Your task to perform on an android device: change the clock style Image 0: 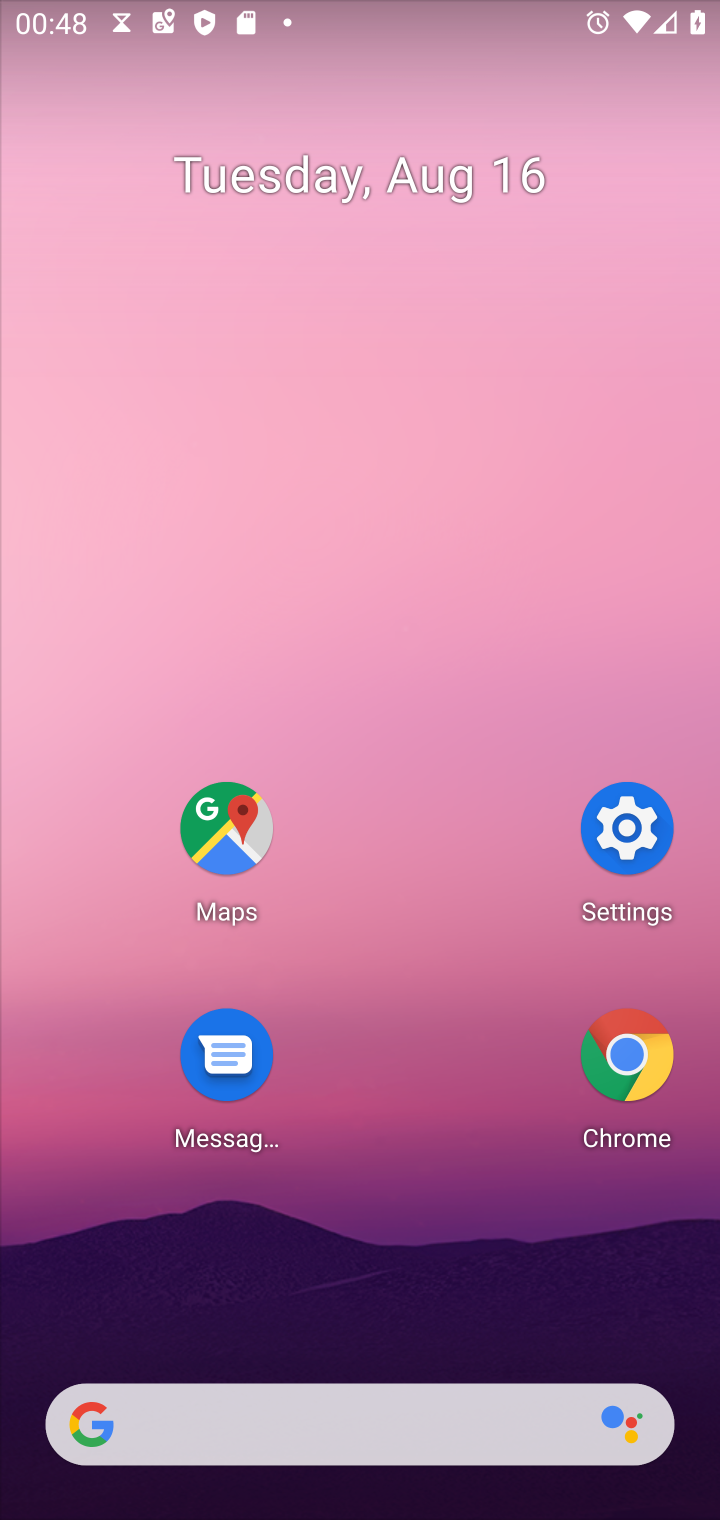
Step 0: drag from (399, 1340) to (695, 11)
Your task to perform on an android device: change the clock style Image 1: 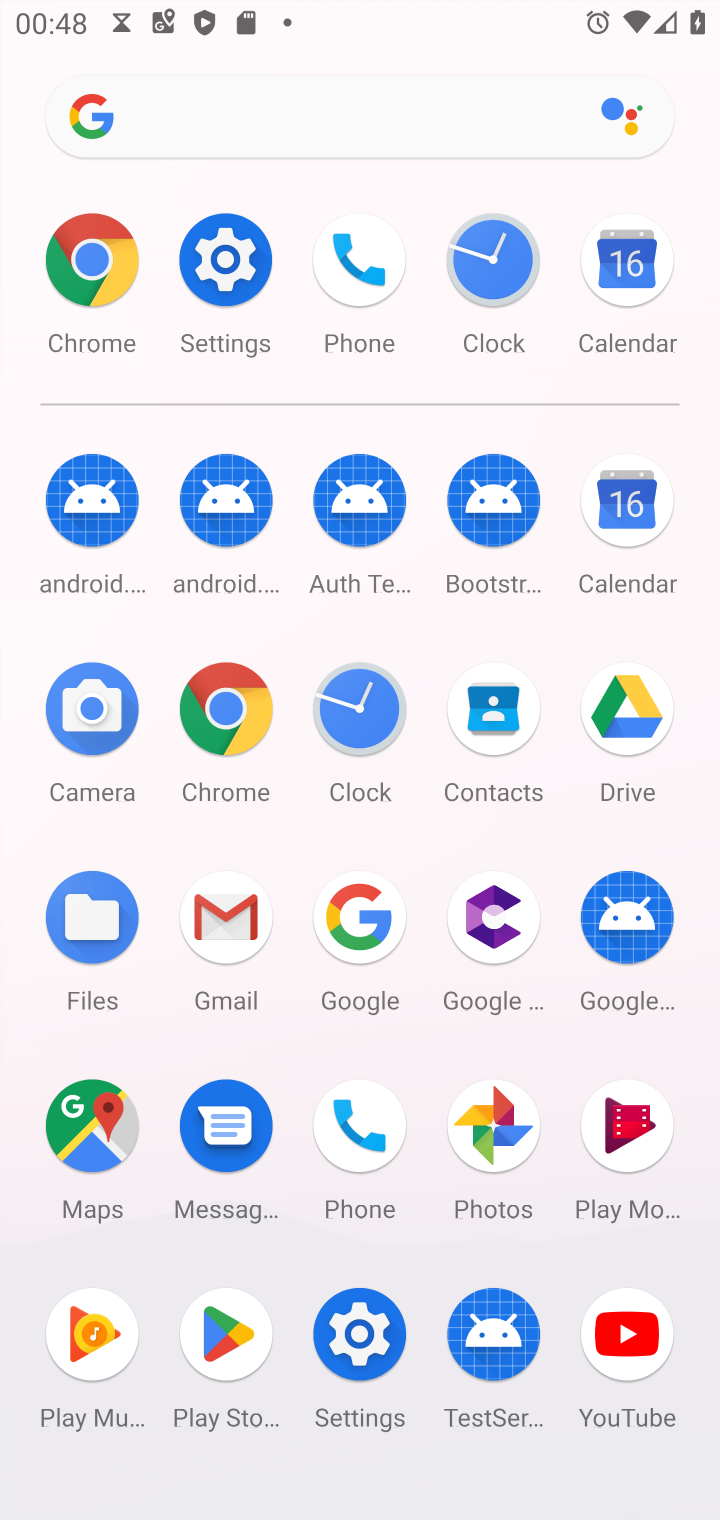
Step 1: click (351, 707)
Your task to perform on an android device: change the clock style Image 2: 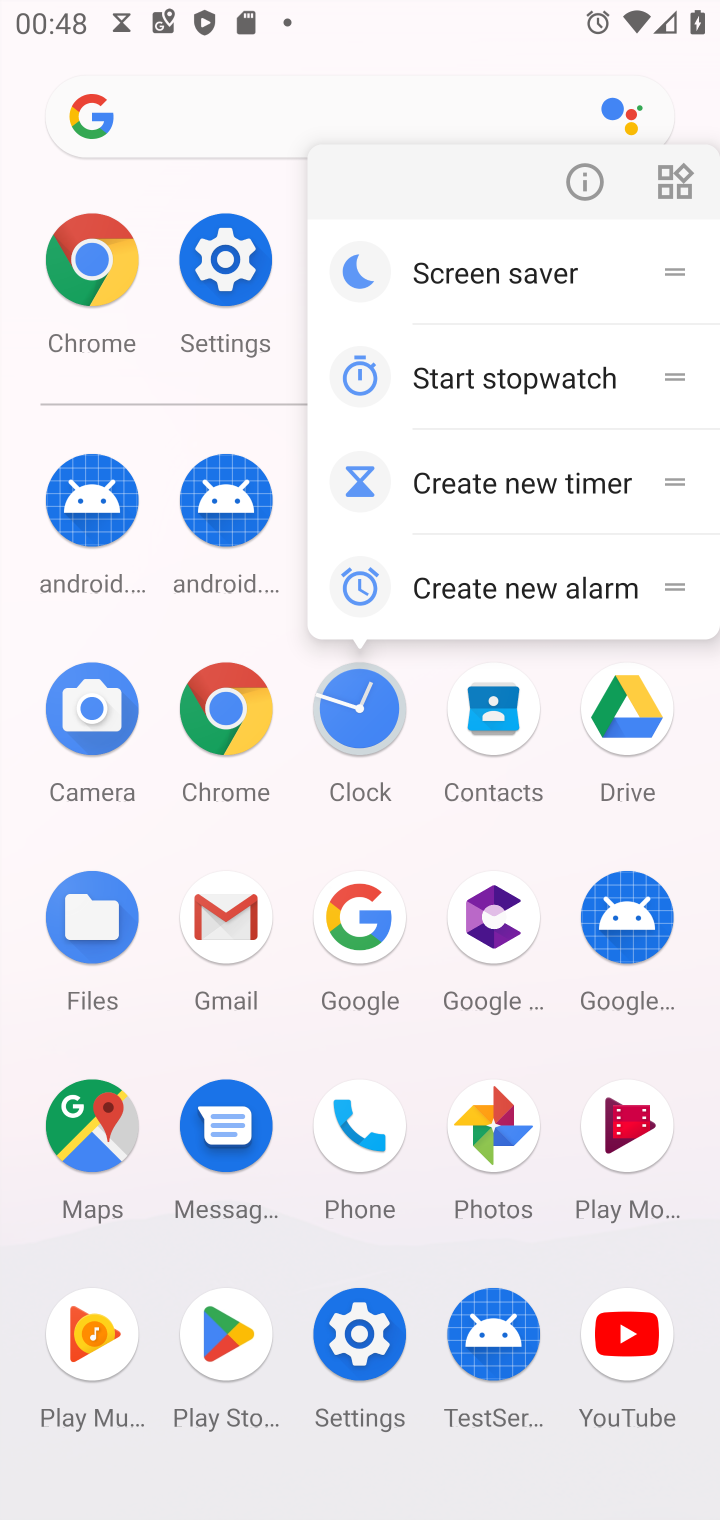
Step 2: click (351, 711)
Your task to perform on an android device: change the clock style Image 3: 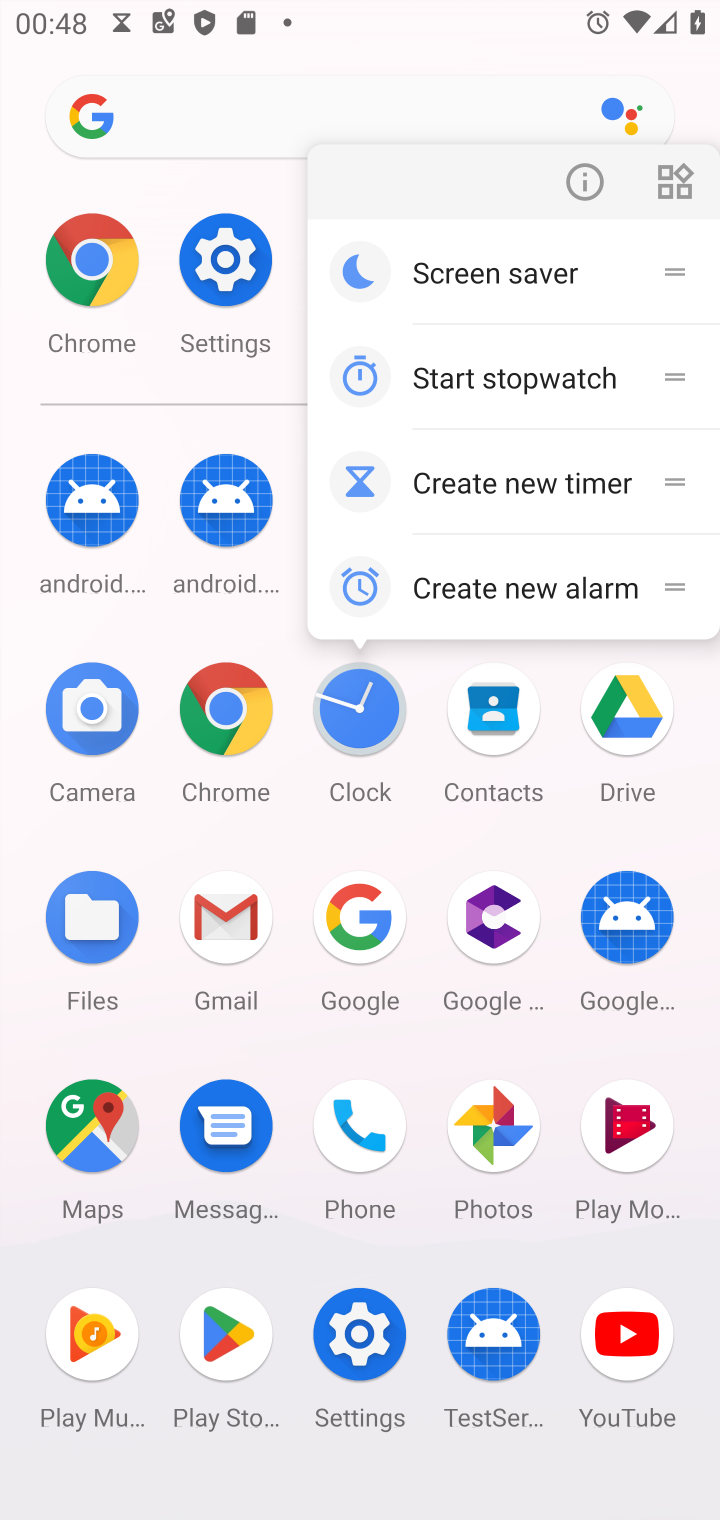
Step 3: click (351, 709)
Your task to perform on an android device: change the clock style Image 4: 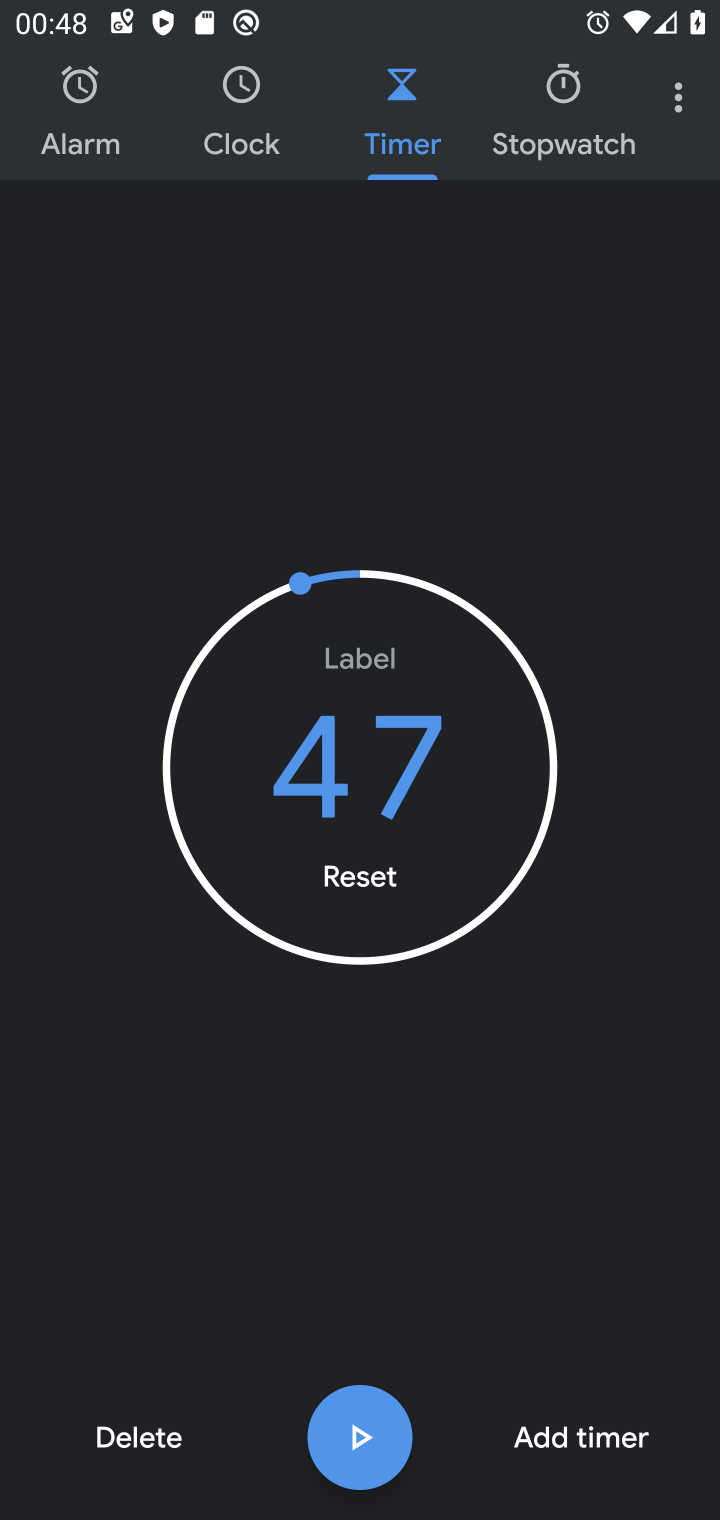
Step 4: click (677, 89)
Your task to perform on an android device: change the clock style Image 5: 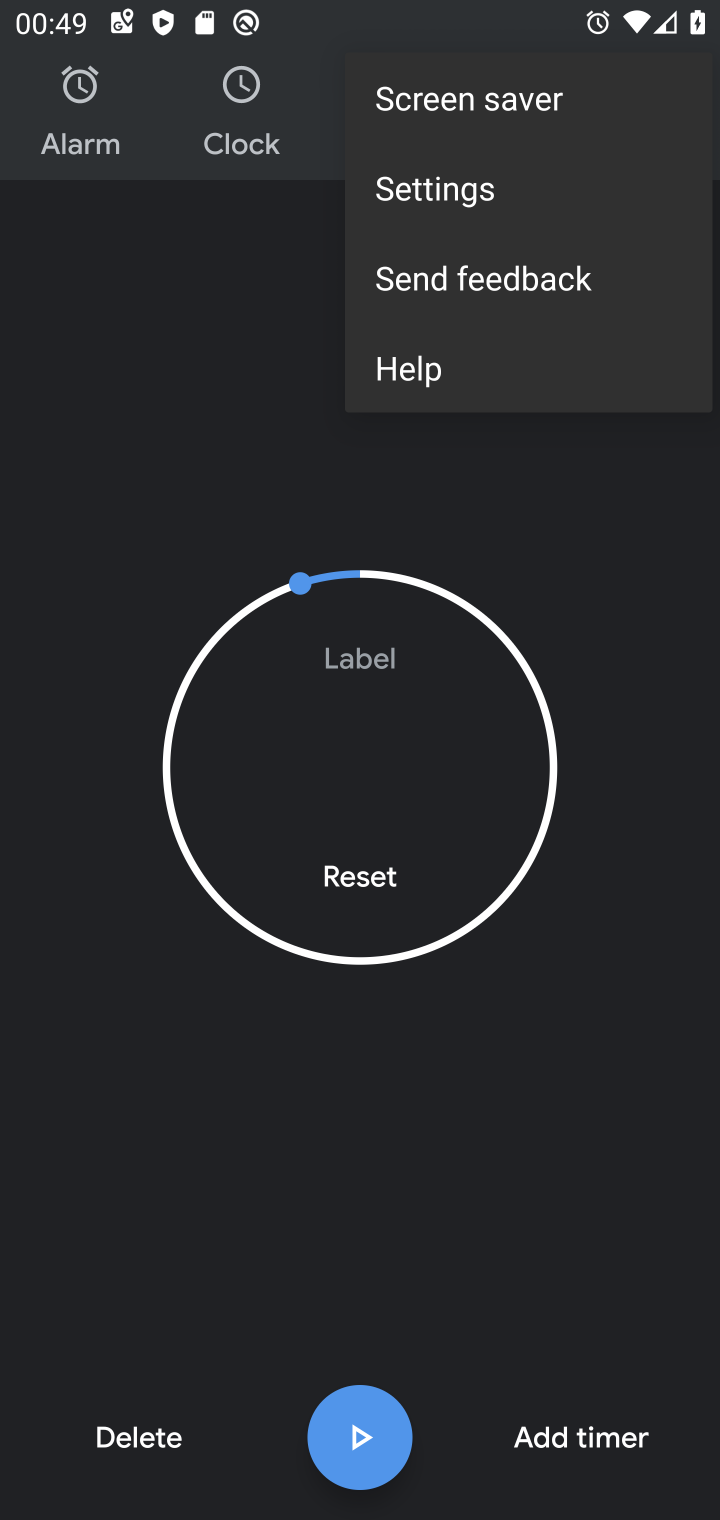
Step 5: click (453, 182)
Your task to perform on an android device: change the clock style Image 6: 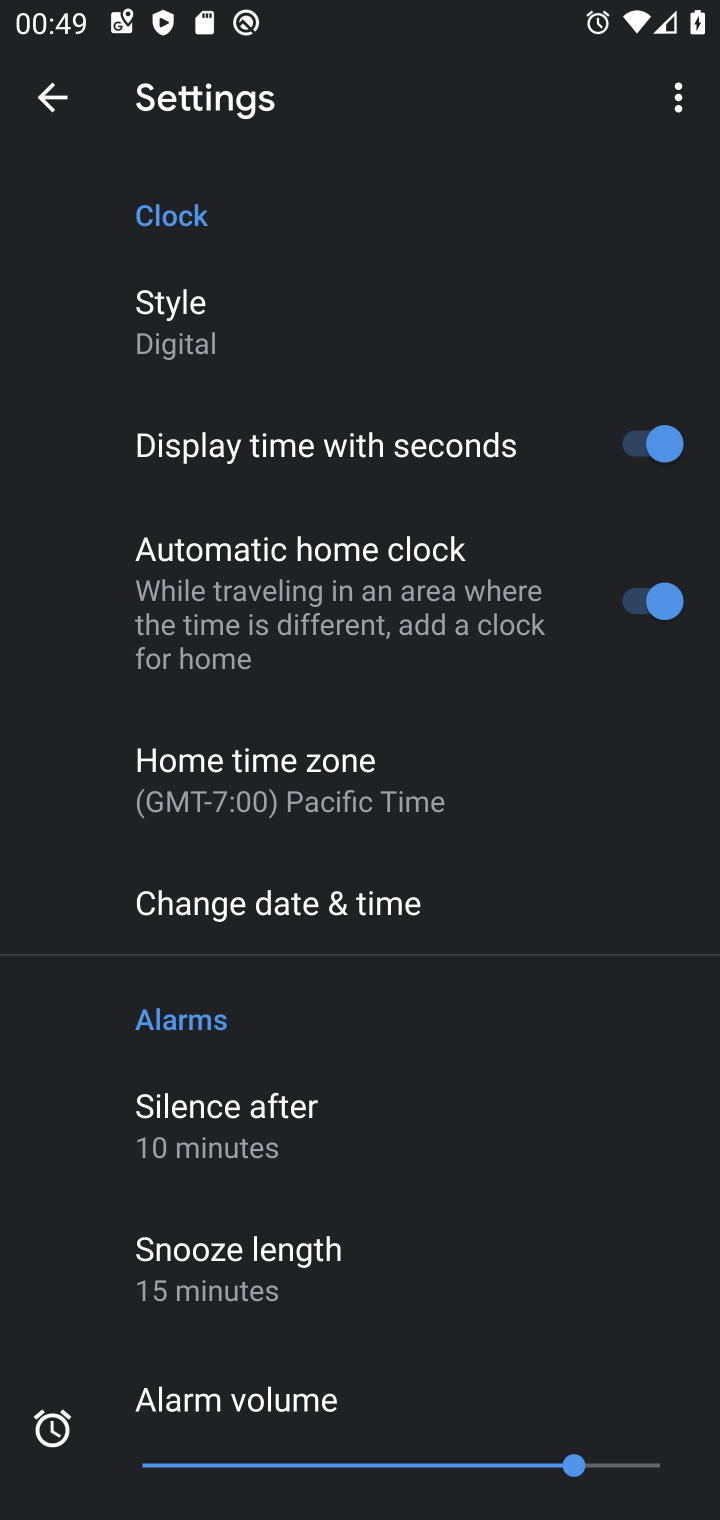
Step 6: click (228, 322)
Your task to perform on an android device: change the clock style Image 7: 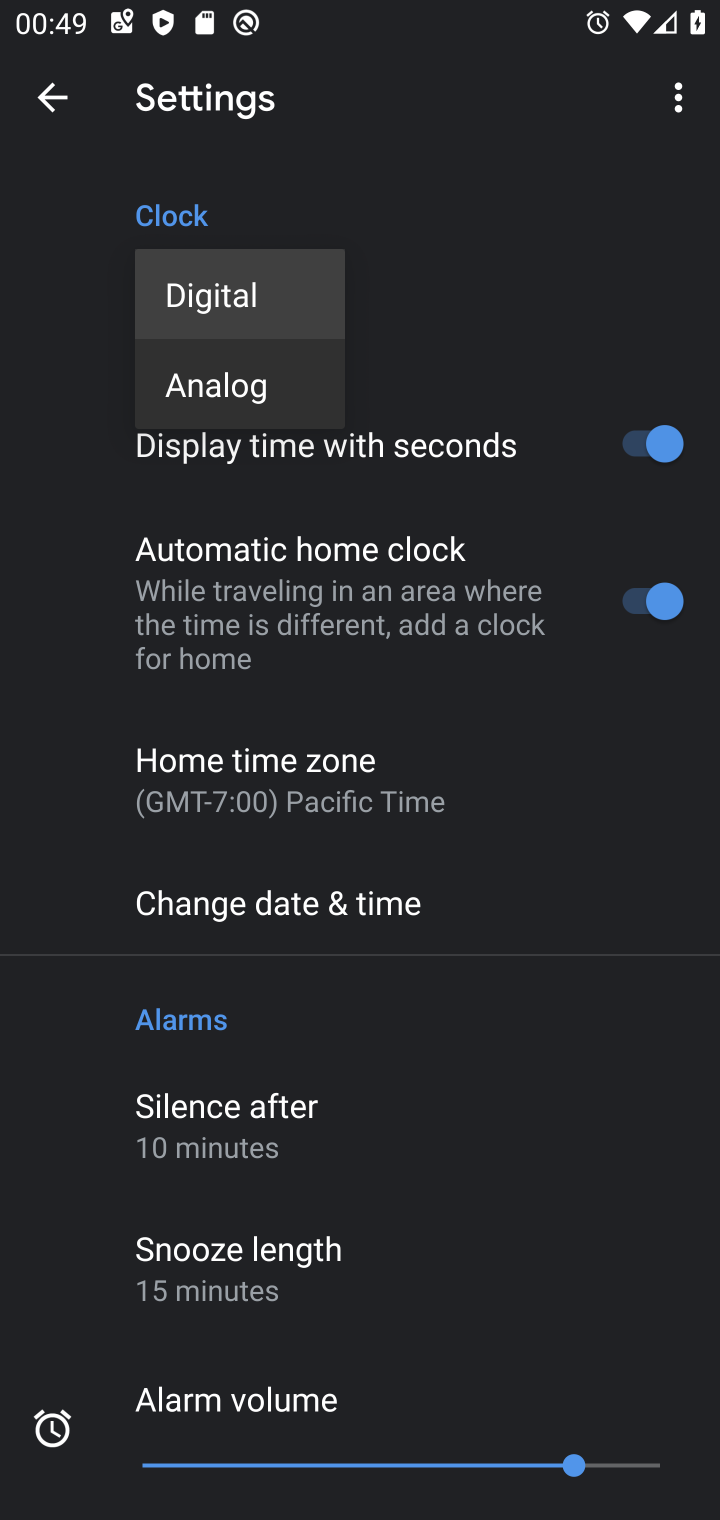
Step 7: click (232, 388)
Your task to perform on an android device: change the clock style Image 8: 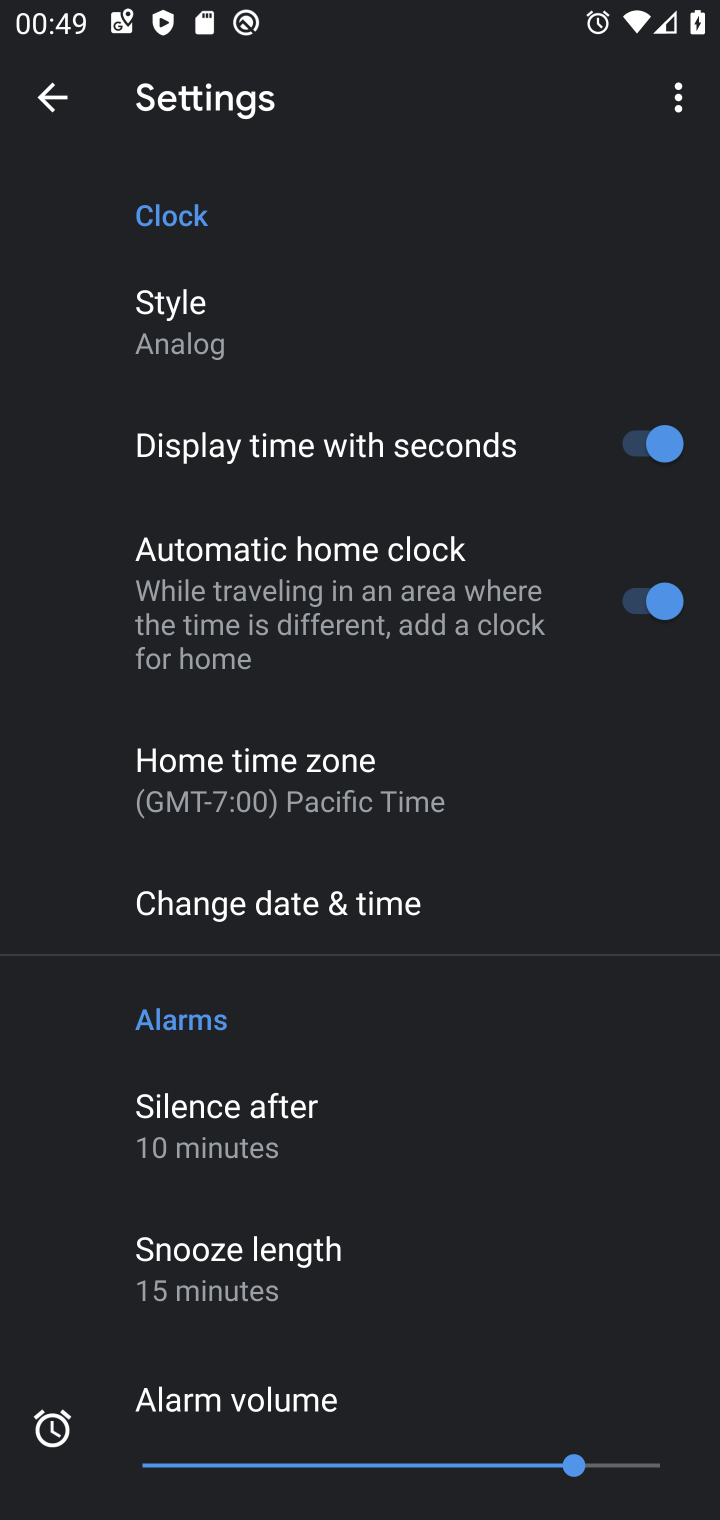
Step 8: task complete